Your task to perform on an android device: empty trash in the gmail app Image 0: 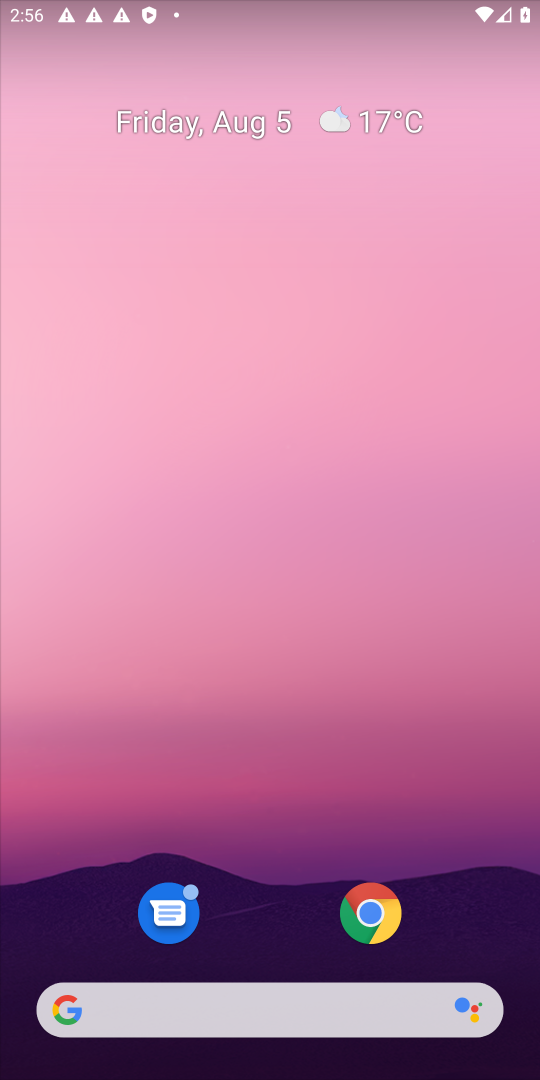
Step 0: press home button
Your task to perform on an android device: empty trash in the gmail app Image 1: 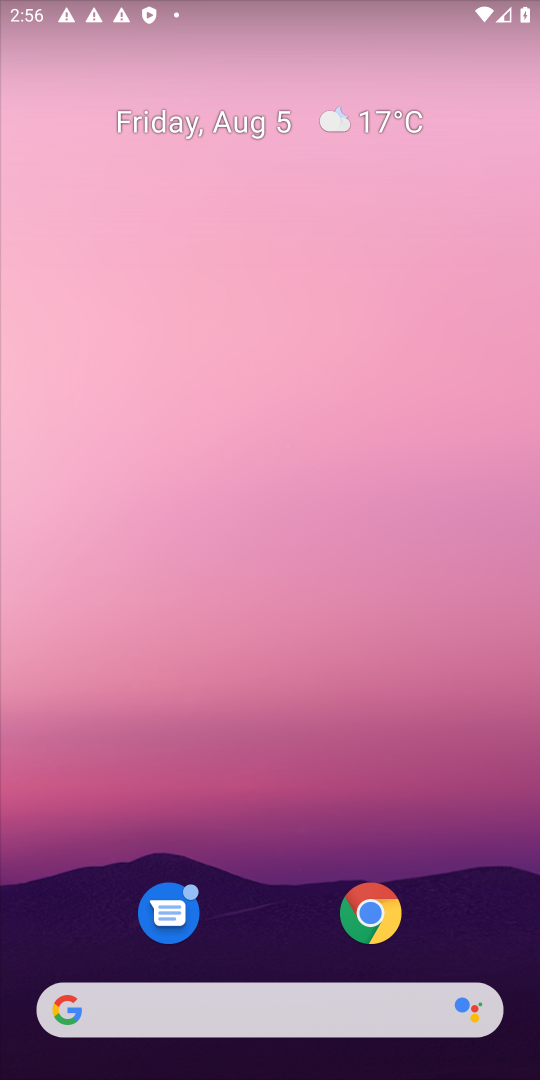
Step 1: drag from (338, 738) to (383, 44)
Your task to perform on an android device: empty trash in the gmail app Image 2: 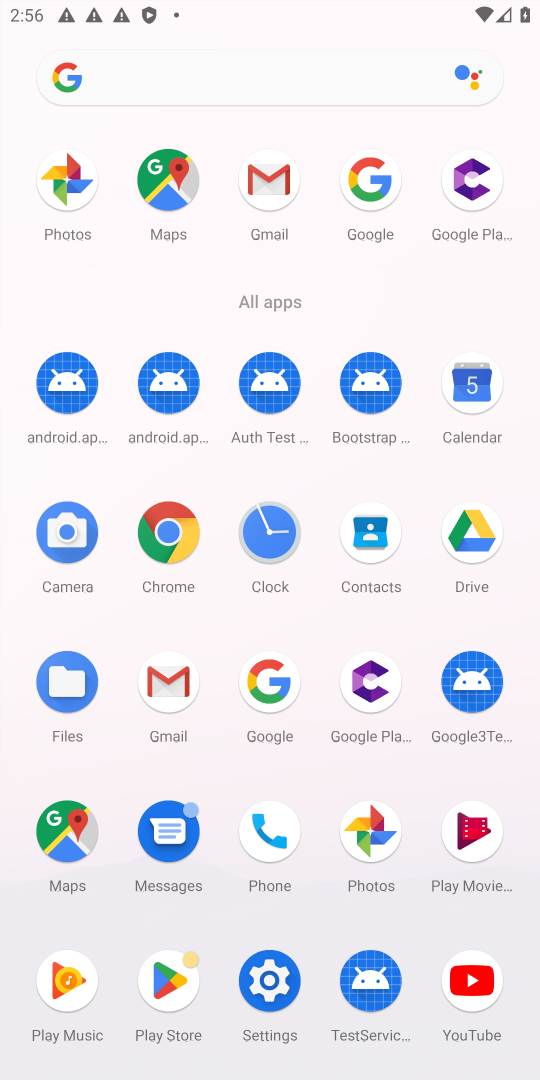
Step 2: click (258, 186)
Your task to perform on an android device: empty trash in the gmail app Image 3: 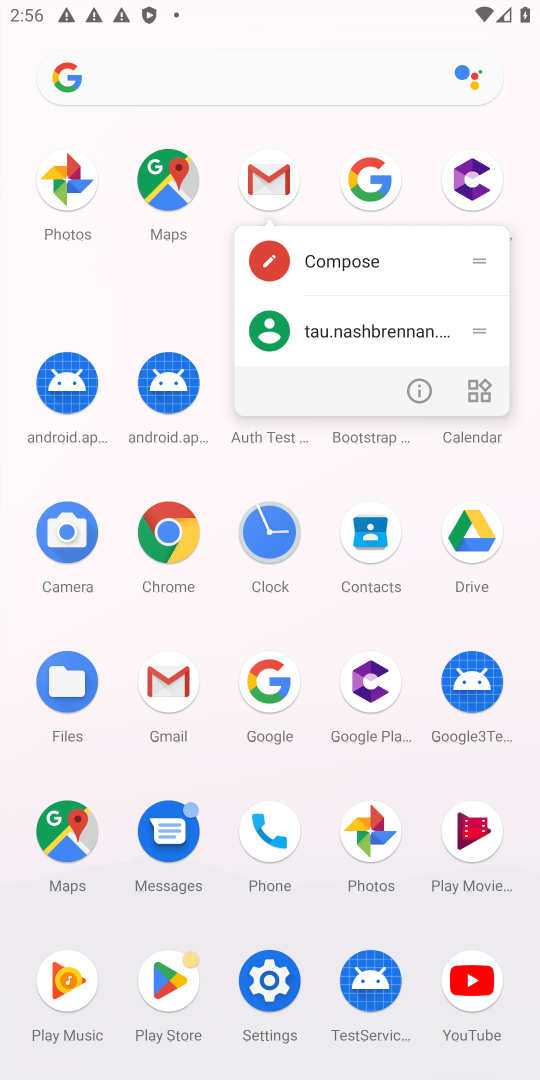
Step 3: click (261, 183)
Your task to perform on an android device: empty trash in the gmail app Image 4: 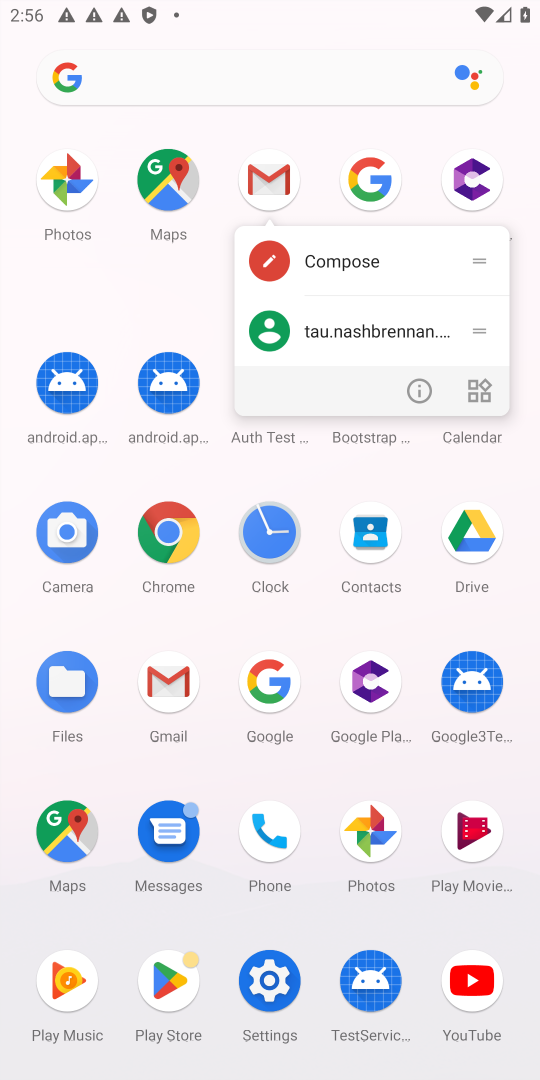
Step 4: click (261, 183)
Your task to perform on an android device: empty trash in the gmail app Image 5: 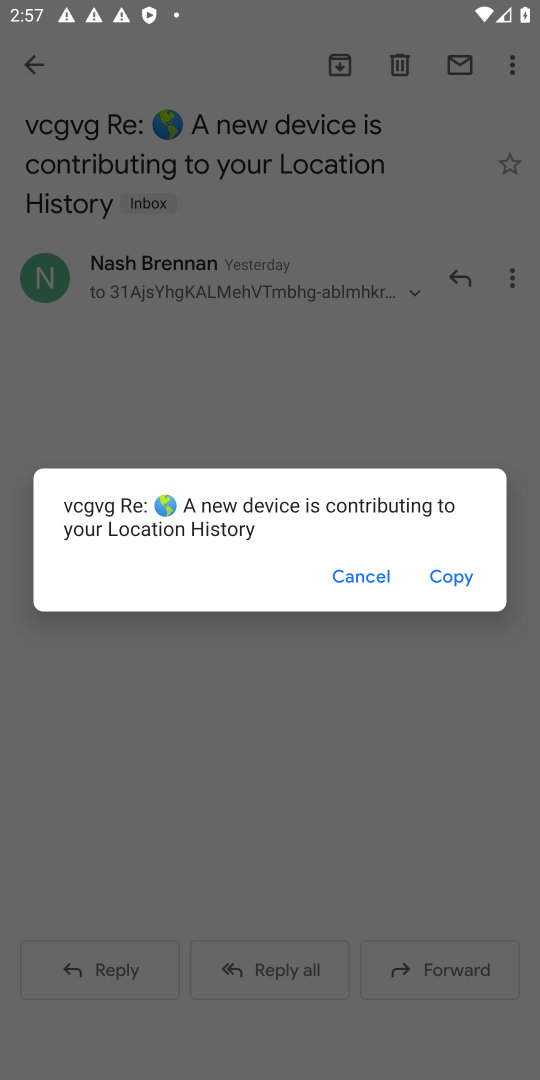
Step 5: click (35, 64)
Your task to perform on an android device: empty trash in the gmail app Image 6: 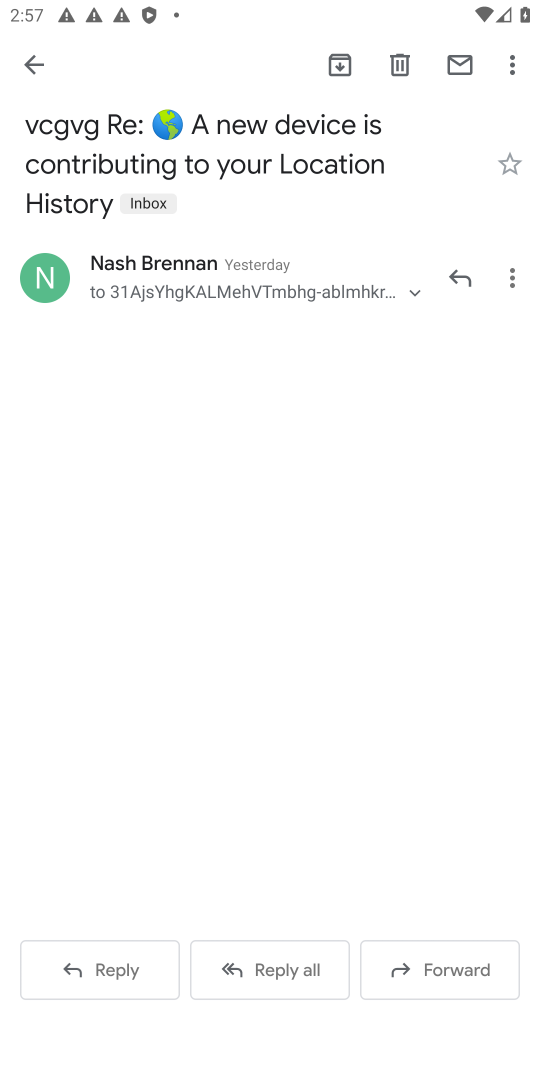
Step 6: click (41, 67)
Your task to perform on an android device: empty trash in the gmail app Image 7: 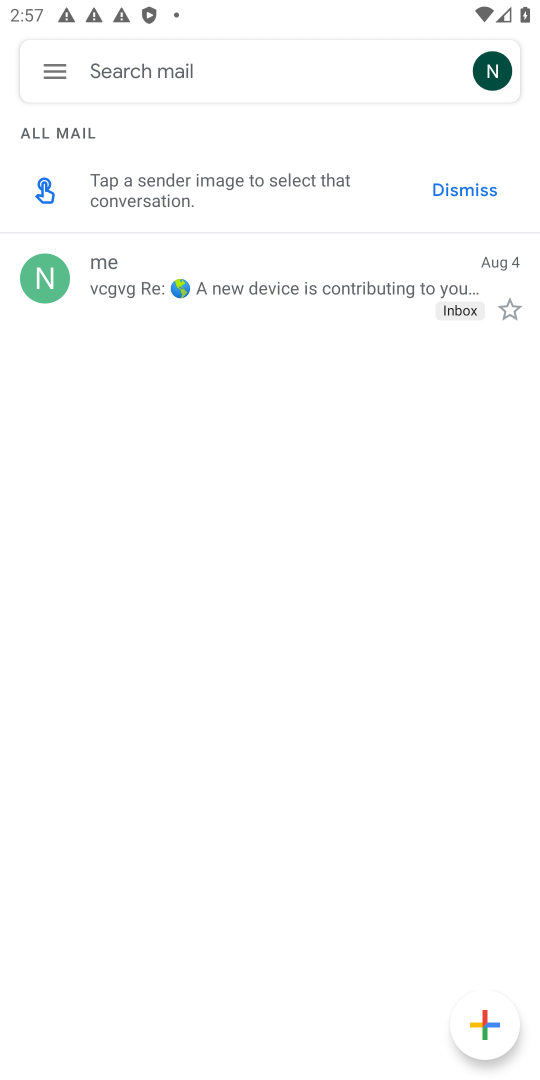
Step 7: click (64, 71)
Your task to perform on an android device: empty trash in the gmail app Image 8: 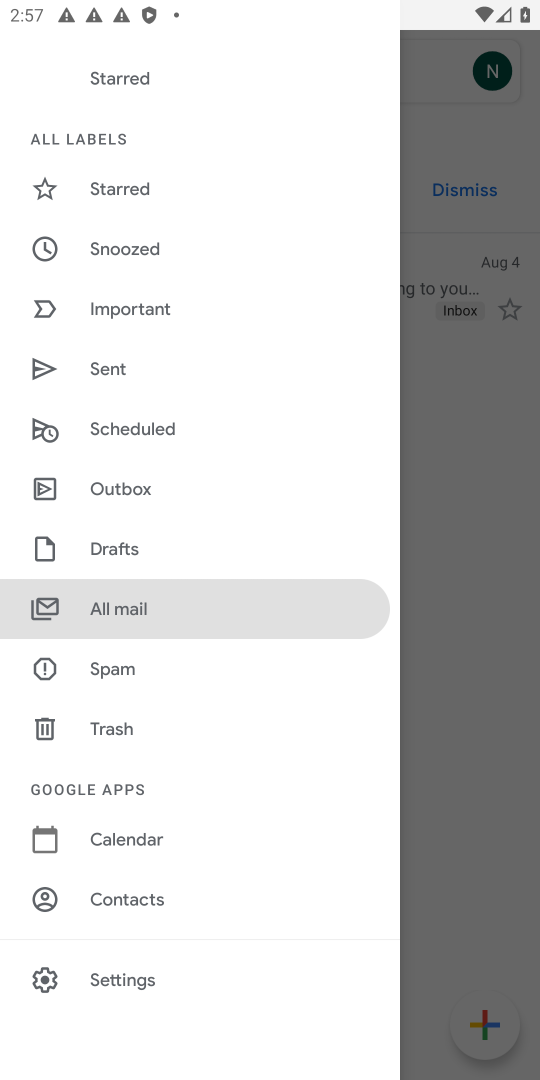
Step 8: click (143, 722)
Your task to perform on an android device: empty trash in the gmail app Image 9: 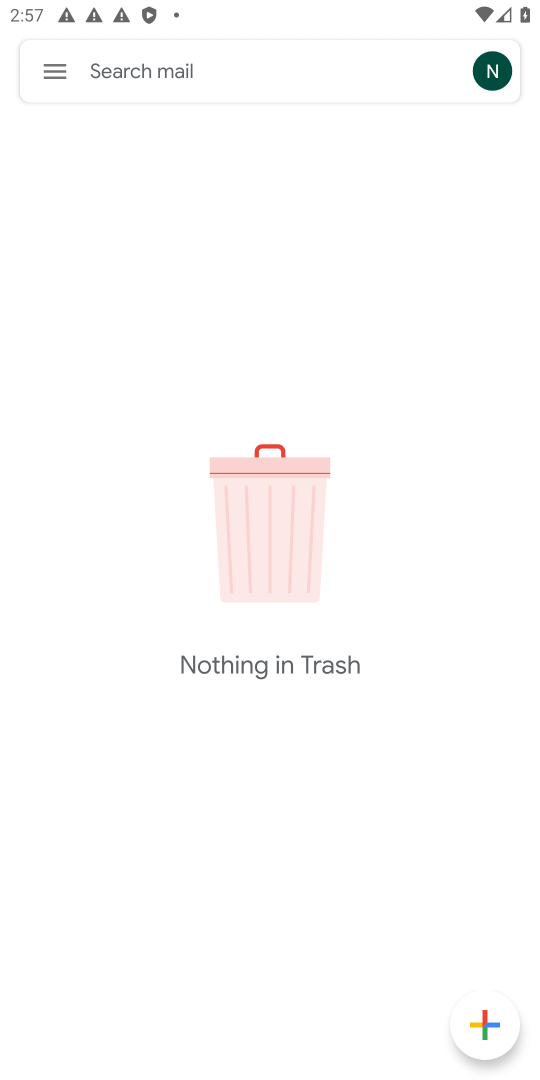
Step 9: task complete